Your task to perform on an android device: Show me popular games on the Play Store Image 0: 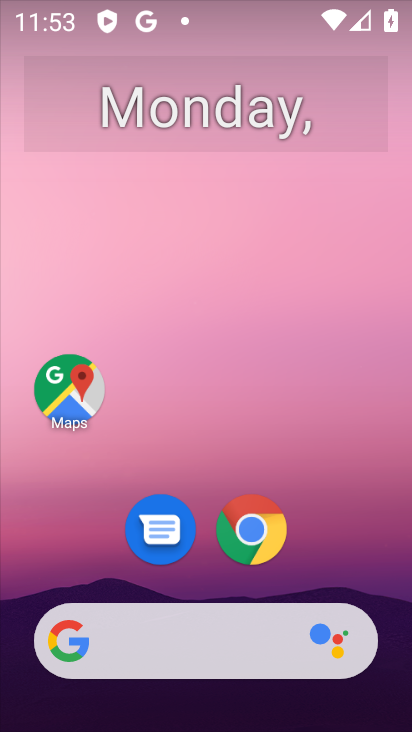
Step 0: drag from (232, 722) to (228, 123)
Your task to perform on an android device: Show me popular games on the Play Store Image 1: 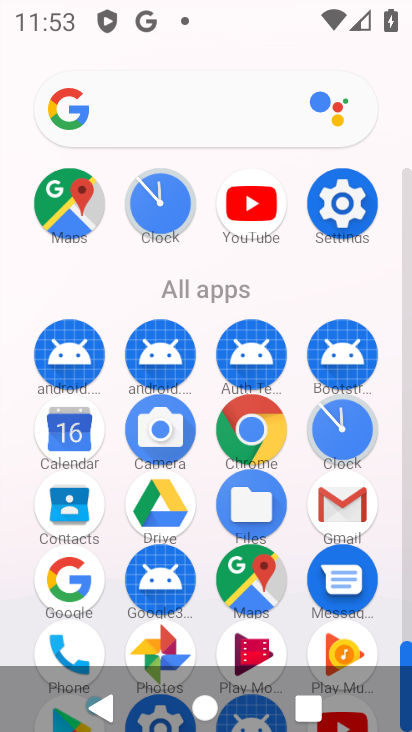
Step 1: drag from (306, 636) to (272, 213)
Your task to perform on an android device: Show me popular games on the Play Store Image 2: 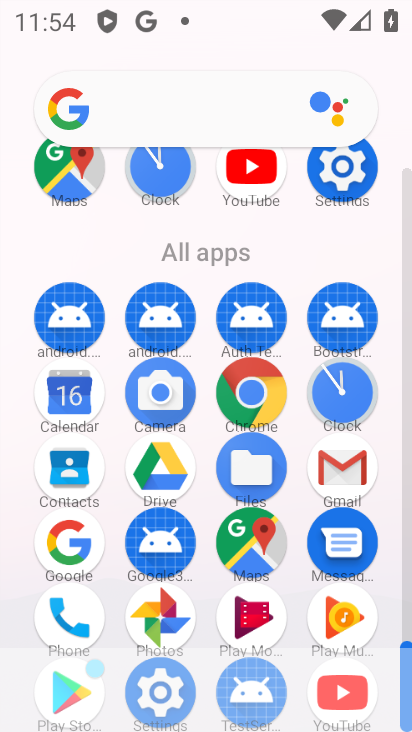
Step 2: drag from (137, 631) to (103, 216)
Your task to perform on an android device: Show me popular games on the Play Store Image 3: 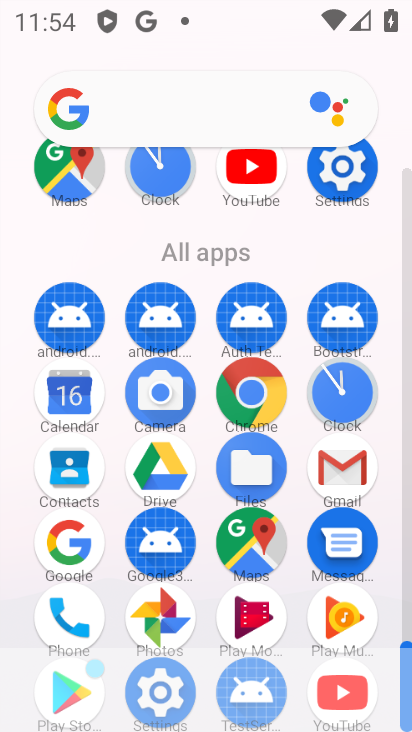
Step 3: click (59, 680)
Your task to perform on an android device: Show me popular games on the Play Store Image 4: 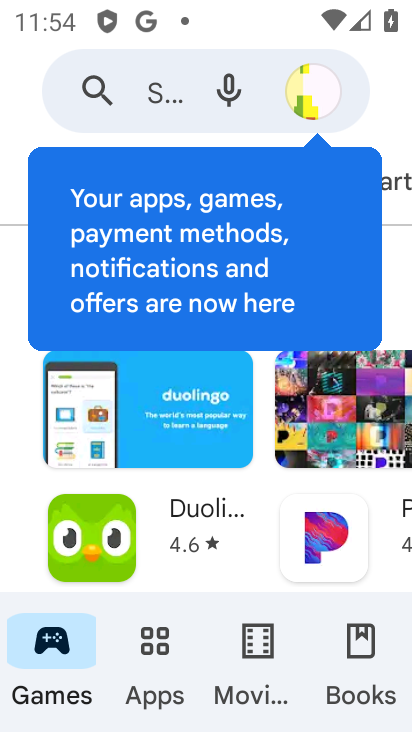
Step 4: drag from (204, 525) to (193, 60)
Your task to perform on an android device: Show me popular games on the Play Store Image 5: 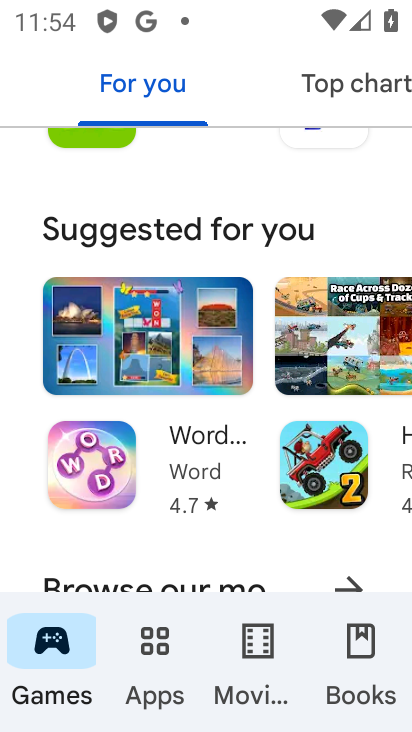
Step 5: drag from (195, 548) to (200, 144)
Your task to perform on an android device: Show me popular games on the Play Store Image 6: 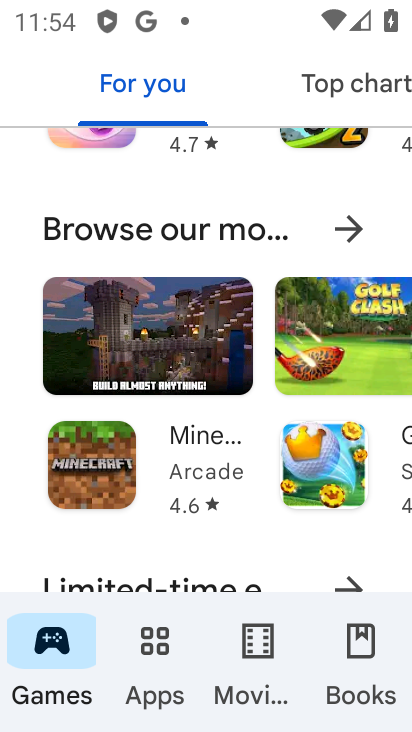
Step 6: click (323, 225)
Your task to perform on an android device: Show me popular games on the Play Store Image 7: 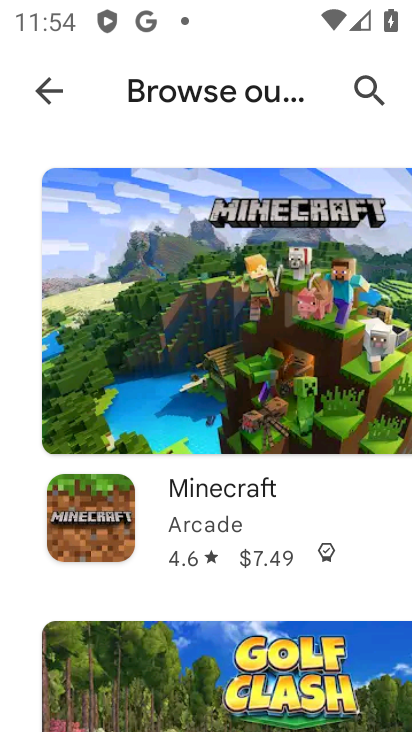
Step 7: task complete